Your task to perform on an android device: Open Android settings Image 0: 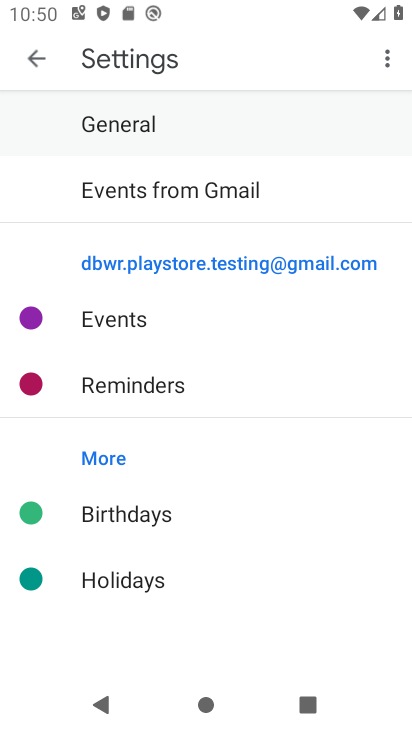
Step 0: press home button
Your task to perform on an android device: Open Android settings Image 1: 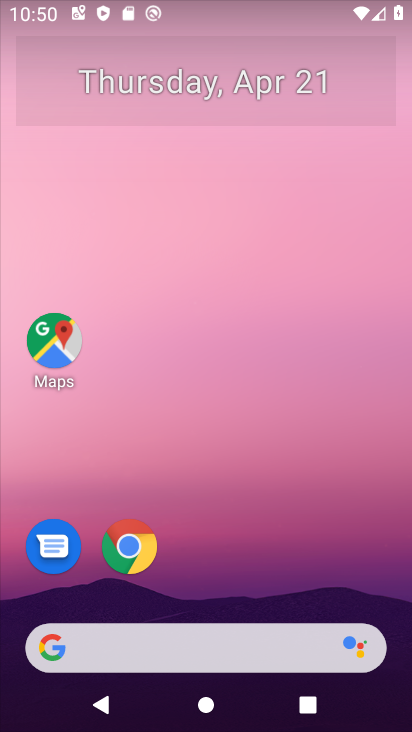
Step 1: drag from (235, 573) to (209, 105)
Your task to perform on an android device: Open Android settings Image 2: 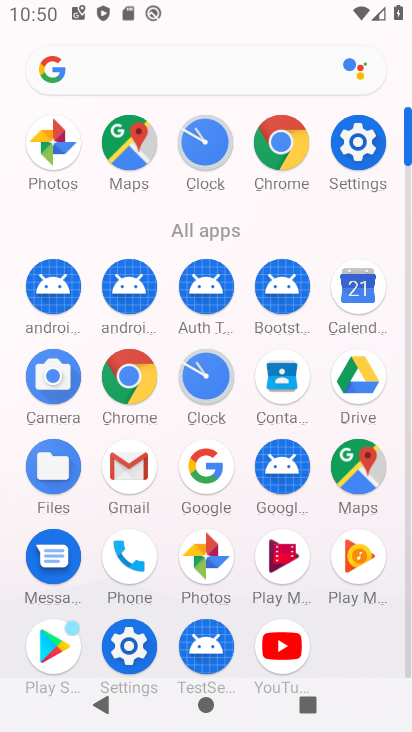
Step 2: click (121, 652)
Your task to perform on an android device: Open Android settings Image 3: 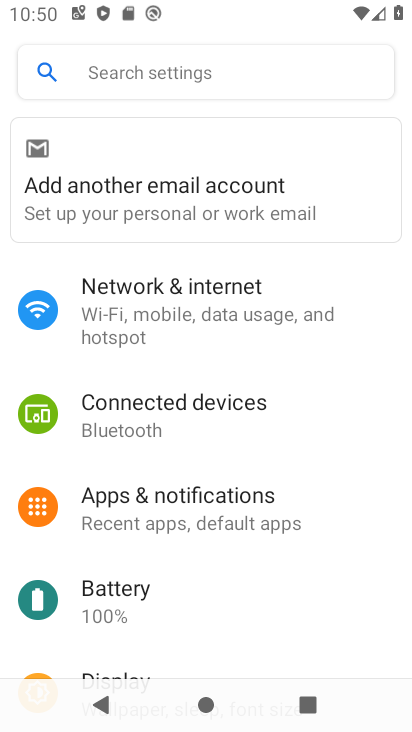
Step 3: task complete